Your task to perform on an android device: add a contact Image 0: 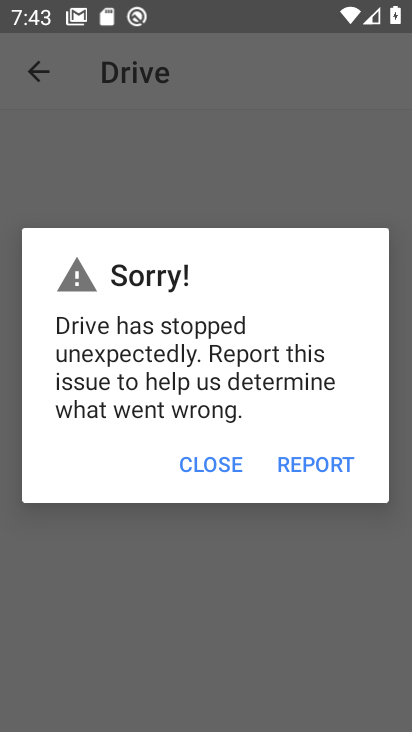
Step 0: press home button
Your task to perform on an android device: add a contact Image 1: 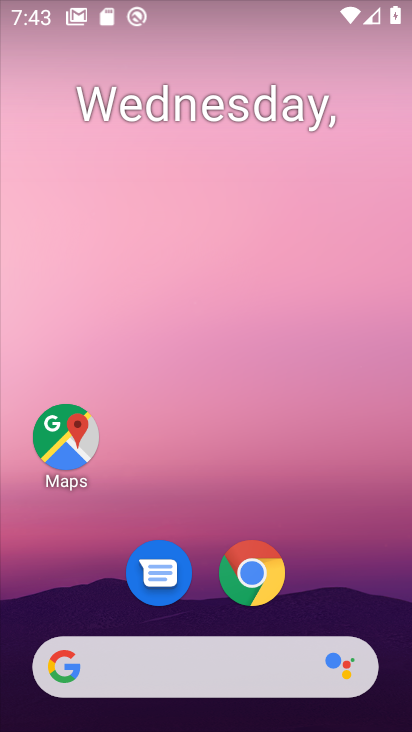
Step 1: drag from (325, 618) to (296, 1)
Your task to perform on an android device: add a contact Image 2: 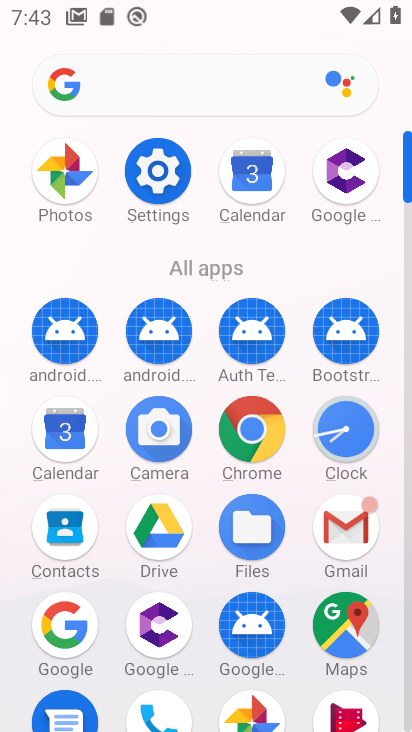
Step 2: click (63, 531)
Your task to perform on an android device: add a contact Image 3: 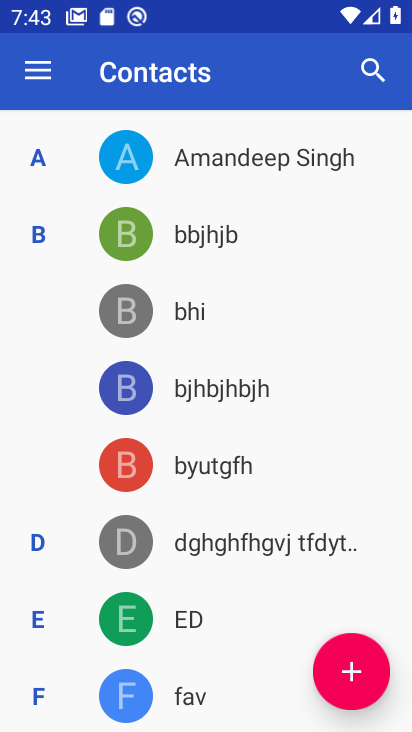
Step 3: click (351, 671)
Your task to perform on an android device: add a contact Image 4: 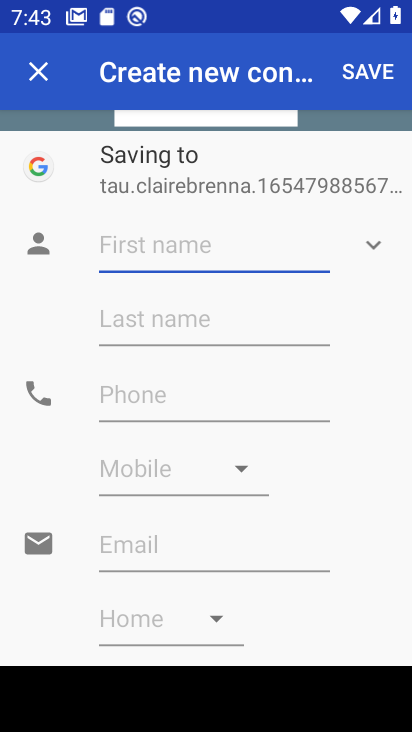
Step 4: click (138, 260)
Your task to perform on an android device: add a contact Image 5: 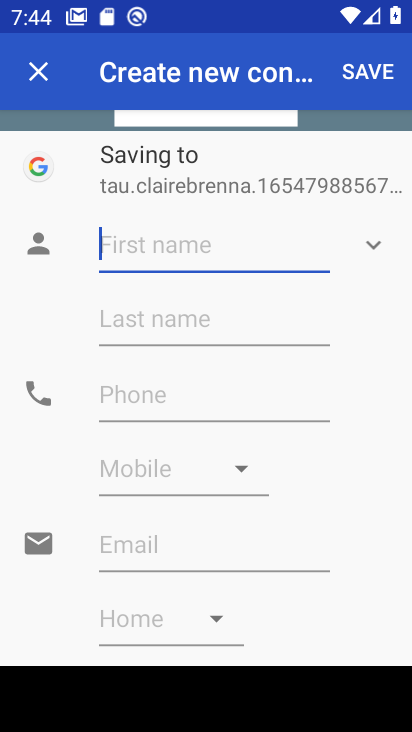
Step 5: type "jhdks"
Your task to perform on an android device: add a contact Image 6: 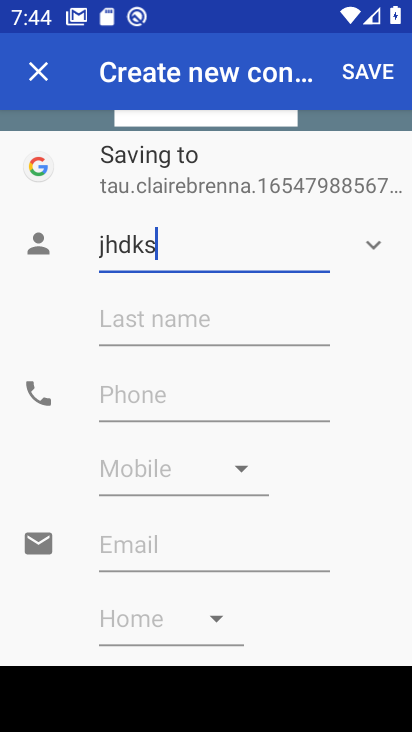
Step 6: click (190, 405)
Your task to perform on an android device: add a contact Image 7: 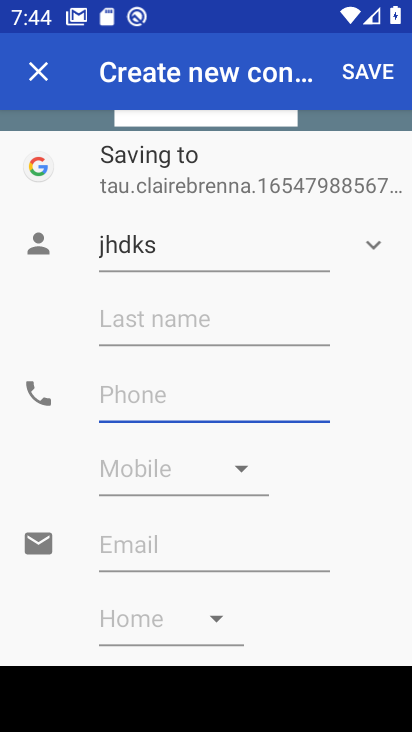
Step 7: type "56473839372"
Your task to perform on an android device: add a contact Image 8: 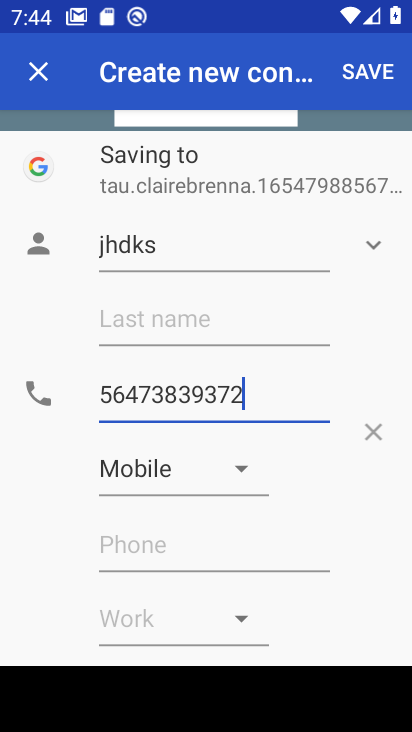
Step 8: click (361, 75)
Your task to perform on an android device: add a contact Image 9: 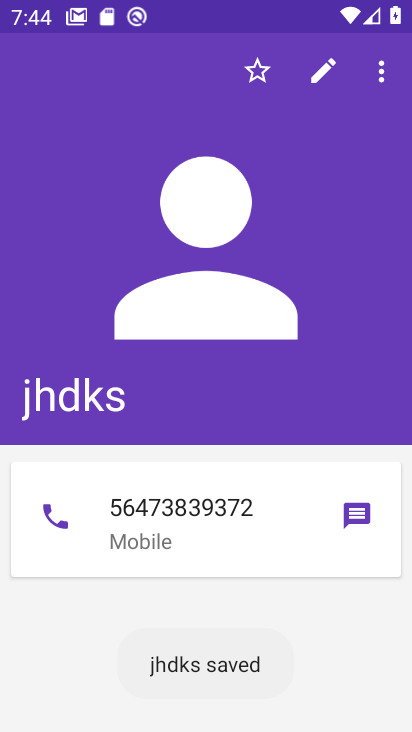
Step 9: task complete